Your task to perform on an android device: Open Google Chrome and click the shortcut for Amazon.com Image 0: 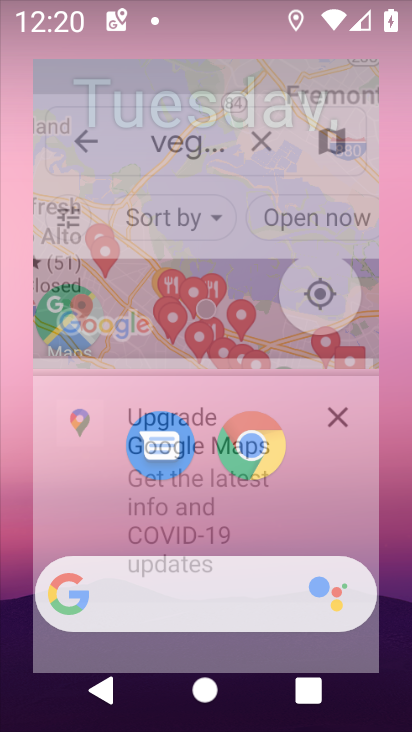
Step 0: drag from (377, 518) to (352, 182)
Your task to perform on an android device: Open Google Chrome and click the shortcut for Amazon.com Image 1: 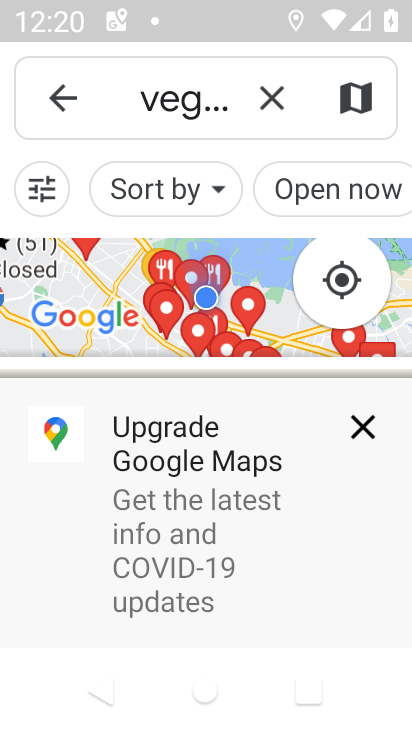
Step 1: press home button
Your task to perform on an android device: Open Google Chrome and click the shortcut for Amazon.com Image 2: 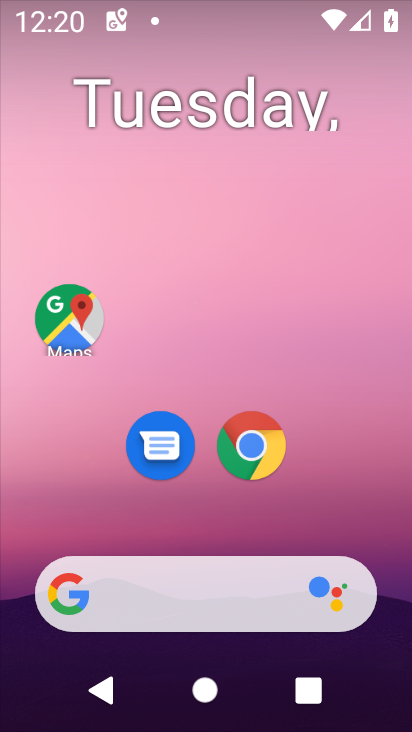
Step 2: drag from (372, 528) to (375, 92)
Your task to perform on an android device: Open Google Chrome and click the shortcut for Amazon.com Image 3: 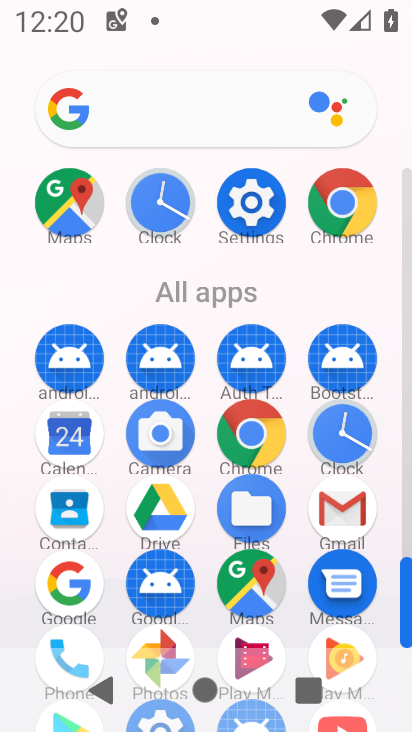
Step 3: drag from (393, 531) to (385, 325)
Your task to perform on an android device: Open Google Chrome and click the shortcut for Amazon.com Image 4: 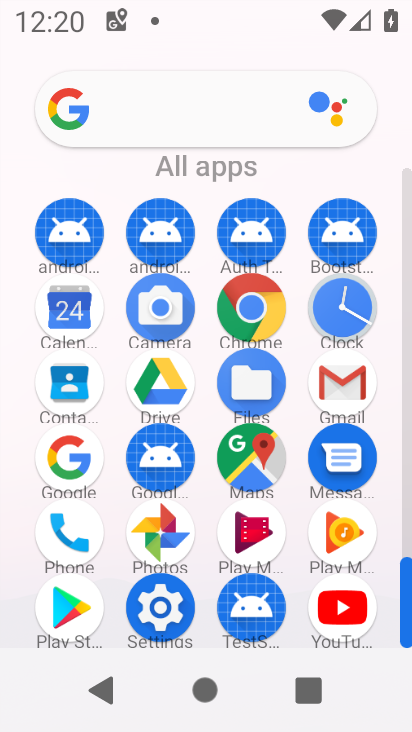
Step 4: click (264, 320)
Your task to perform on an android device: Open Google Chrome and click the shortcut for Amazon.com Image 5: 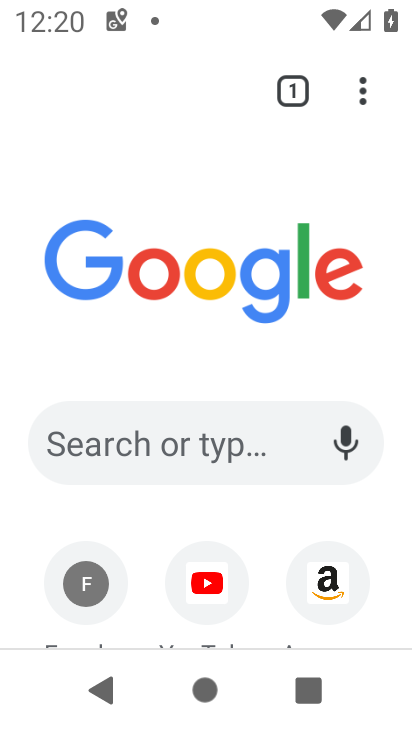
Step 5: drag from (392, 535) to (394, 328)
Your task to perform on an android device: Open Google Chrome and click the shortcut for Amazon.com Image 6: 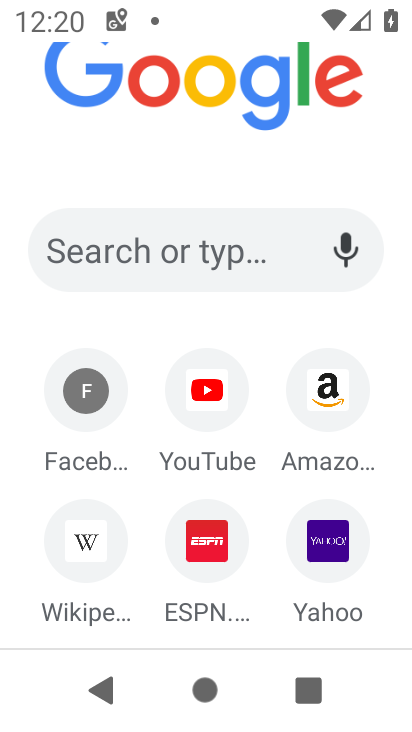
Step 6: drag from (397, 575) to (382, 411)
Your task to perform on an android device: Open Google Chrome and click the shortcut for Amazon.com Image 7: 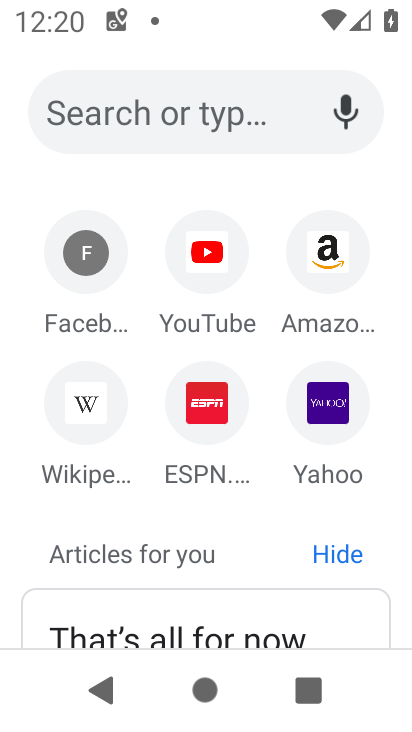
Step 7: click (321, 267)
Your task to perform on an android device: Open Google Chrome and click the shortcut for Amazon.com Image 8: 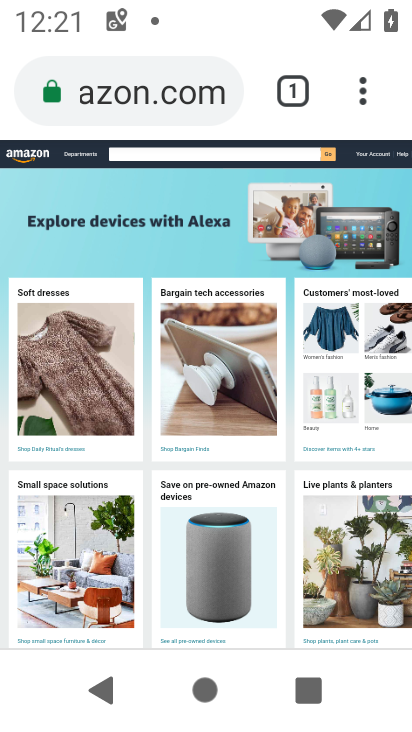
Step 8: task complete